Your task to perform on an android device: Open Chrome and go to settings Image 0: 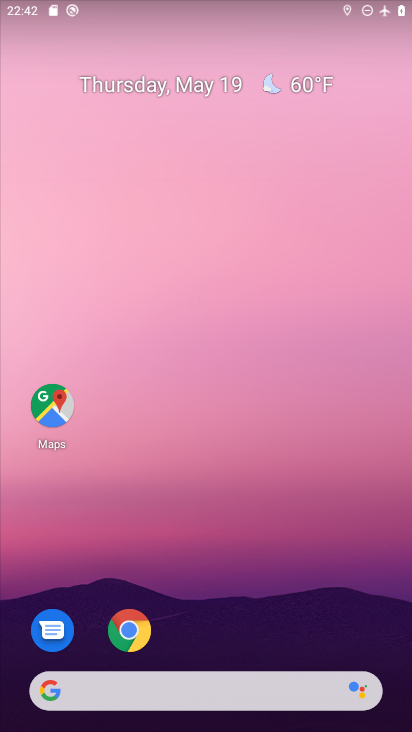
Step 0: click (132, 631)
Your task to perform on an android device: Open Chrome and go to settings Image 1: 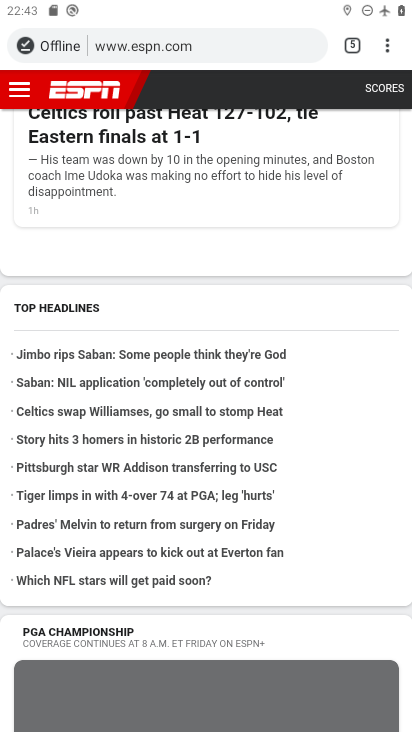
Step 1: click (384, 49)
Your task to perform on an android device: Open Chrome and go to settings Image 2: 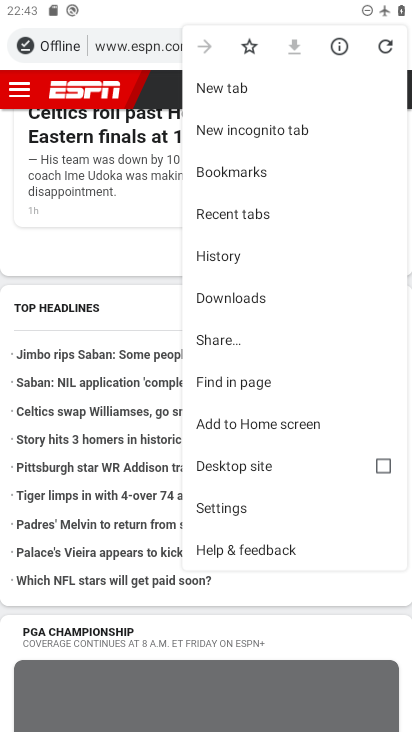
Step 2: click (218, 505)
Your task to perform on an android device: Open Chrome and go to settings Image 3: 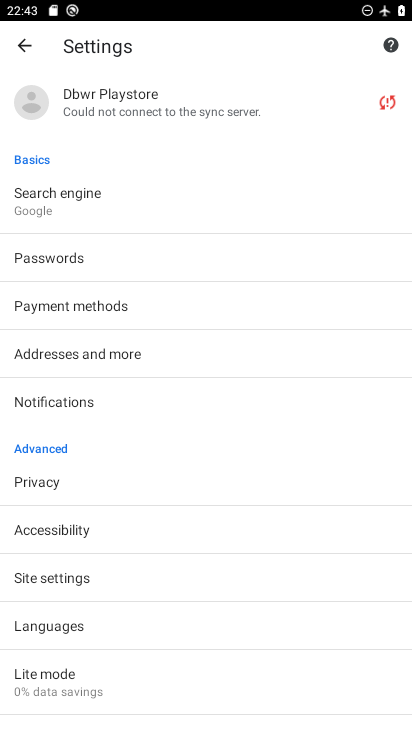
Step 3: task complete